Your task to perform on an android device: Open ESPN.com Image 0: 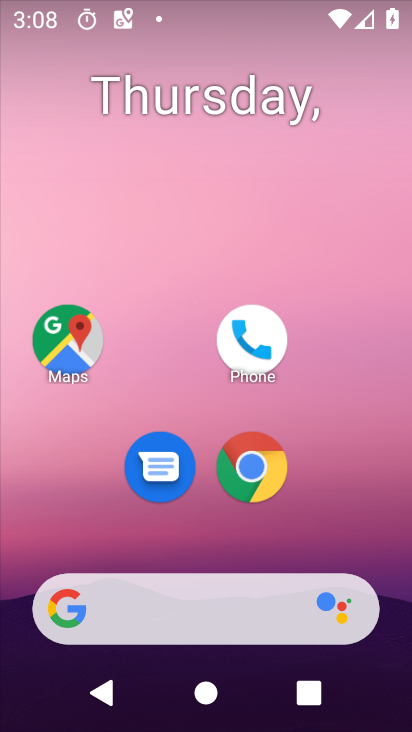
Step 0: drag from (212, 550) to (207, 239)
Your task to perform on an android device: Open ESPN.com Image 1: 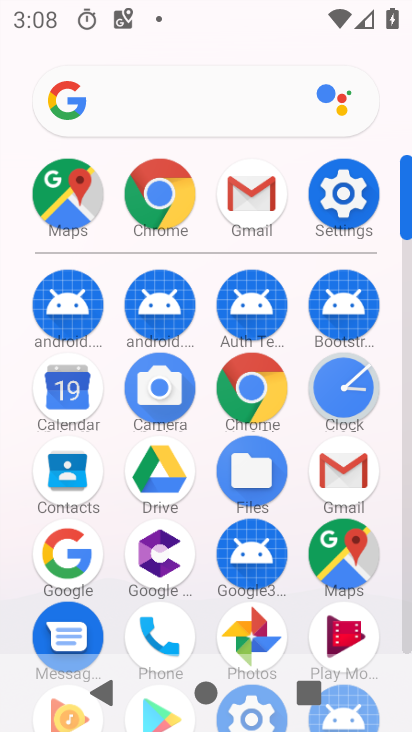
Step 1: click (146, 95)
Your task to perform on an android device: Open ESPN.com Image 2: 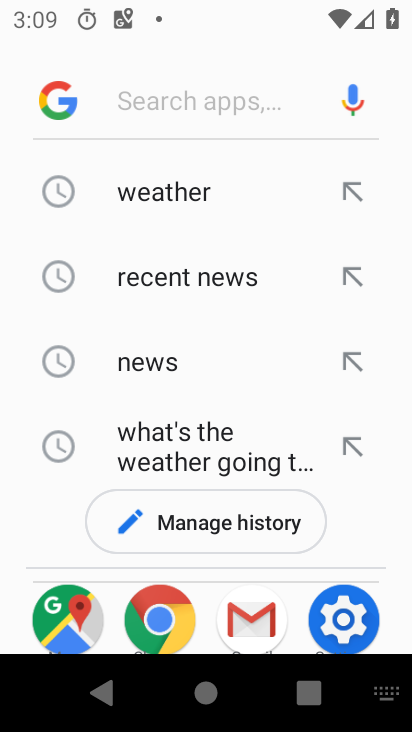
Step 2: drag from (221, 421) to (249, 134)
Your task to perform on an android device: Open ESPN.com Image 3: 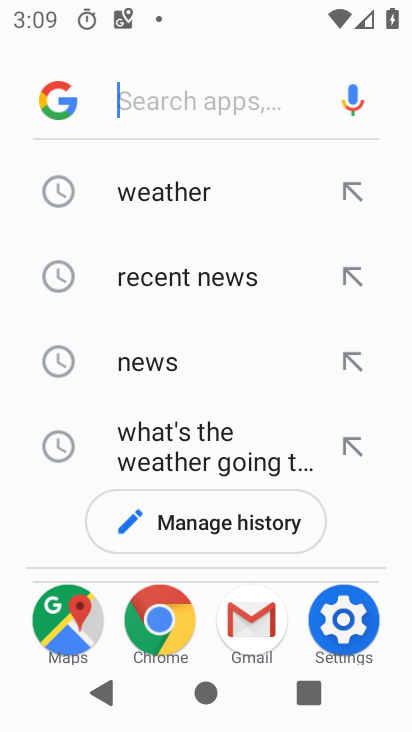
Step 3: type "ESPN.com"
Your task to perform on an android device: Open ESPN.com Image 4: 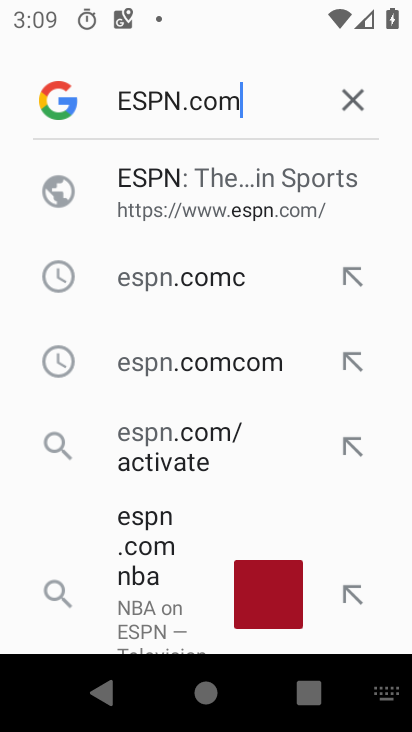
Step 4: type ""
Your task to perform on an android device: Open ESPN.com Image 5: 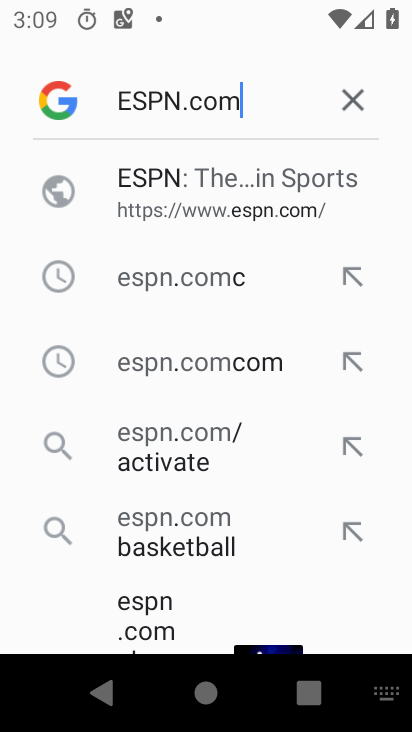
Step 5: click (142, 177)
Your task to perform on an android device: Open ESPN.com Image 6: 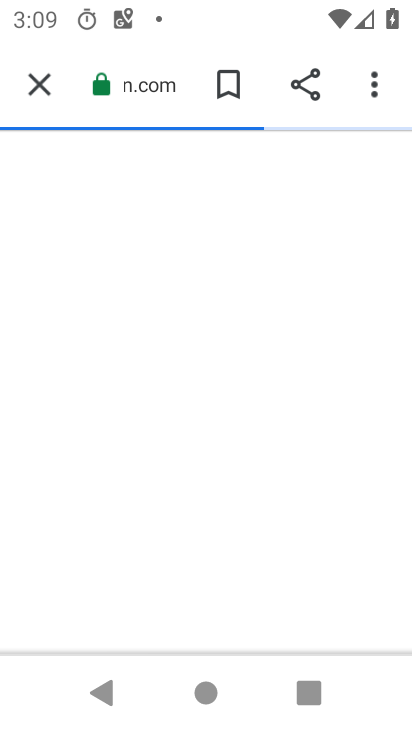
Step 6: drag from (214, 443) to (220, 166)
Your task to perform on an android device: Open ESPN.com Image 7: 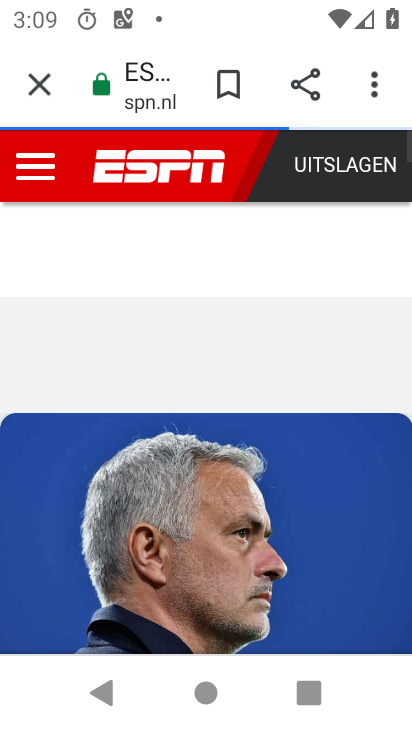
Step 7: drag from (178, 418) to (206, 180)
Your task to perform on an android device: Open ESPN.com Image 8: 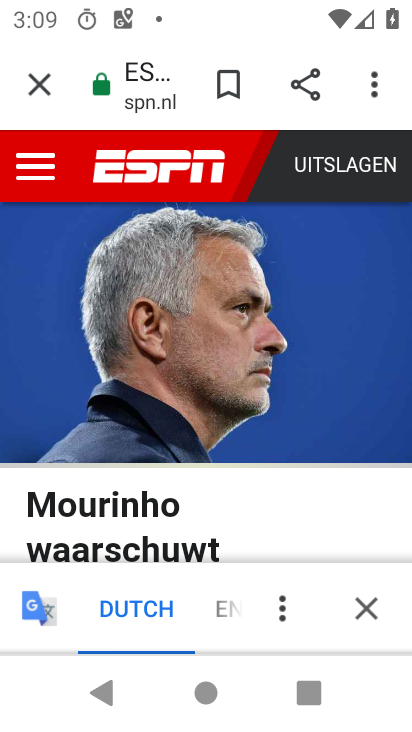
Step 8: drag from (223, 615) to (256, 361)
Your task to perform on an android device: Open ESPN.com Image 9: 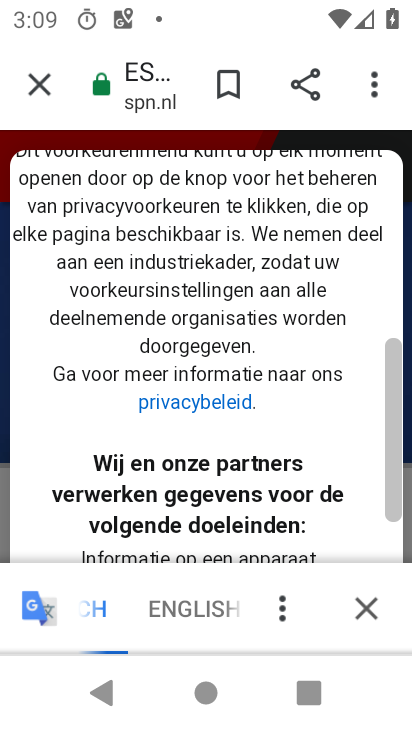
Step 9: click (351, 584)
Your task to perform on an android device: Open ESPN.com Image 10: 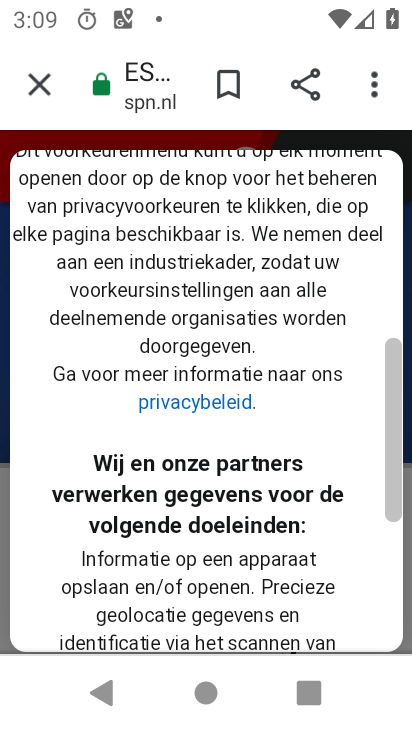
Step 10: task complete